Your task to perform on an android device: all mails in gmail Image 0: 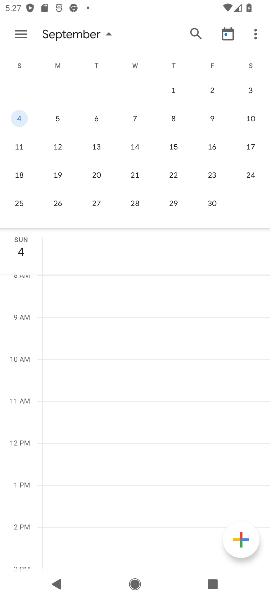
Step 0: press home button
Your task to perform on an android device: all mails in gmail Image 1: 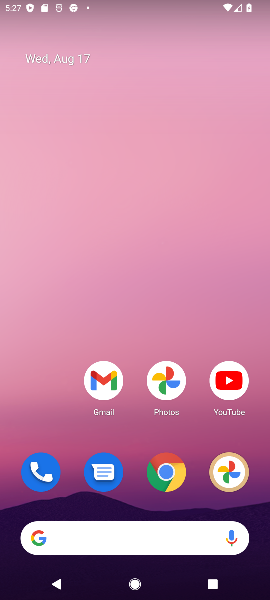
Step 1: click (98, 394)
Your task to perform on an android device: all mails in gmail Image 2: 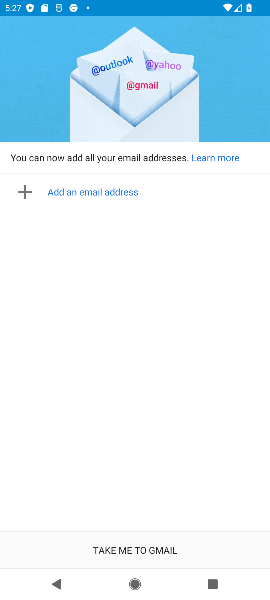
Step 2: click (128, 542)
Your task to perform on an android device: all mails in gmail Image 3: 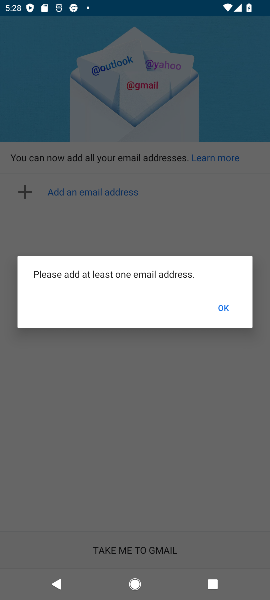
Step 3: task complete